Your task to perform on an android device: turn off sleep mode Image 0: 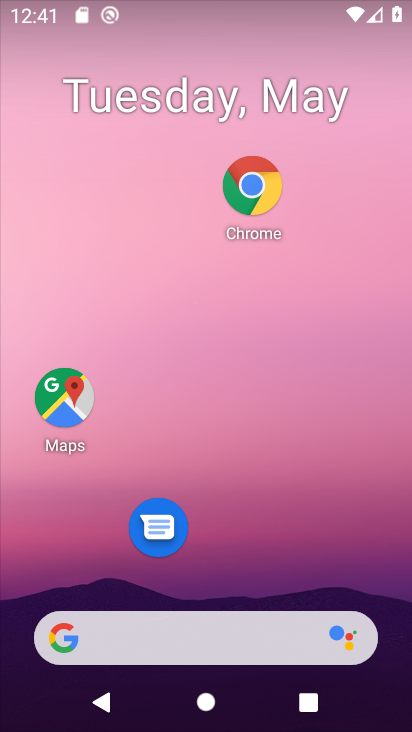
Step 0: drag from (272, 521) to (232, 182)
Your task to perform on an android device: turn off sleep mode Image 1: 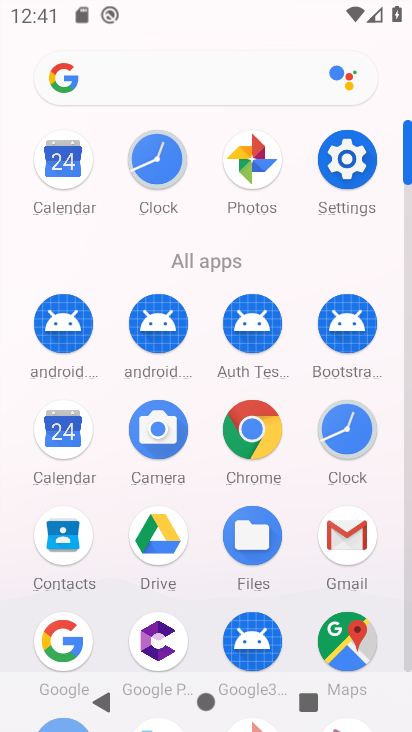
Step 1: click (352, 156)
Your task to perform on an android device: turn off sleep mode Image 2: 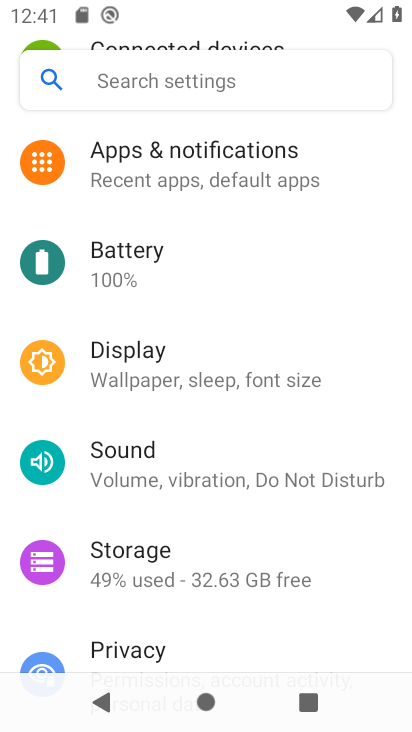
Step 2: click (127, 352)
Your task to perform on an android device: turn off sleep mode Image 3: 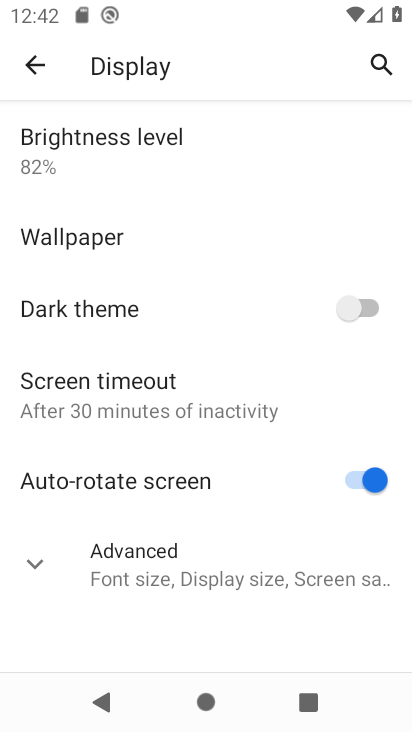
Step 3: task complete